Your task to perform on an android device: Open Google Image 0: 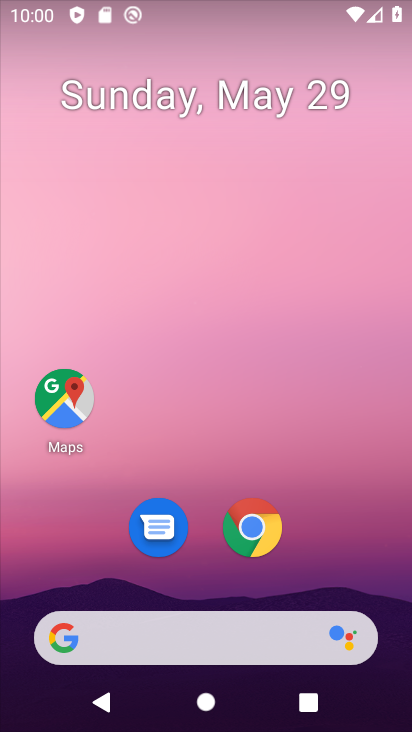
Step 0: drag from (354, 458) to (313, 198)
Your task to perform on an android device: Open Google Image 1: 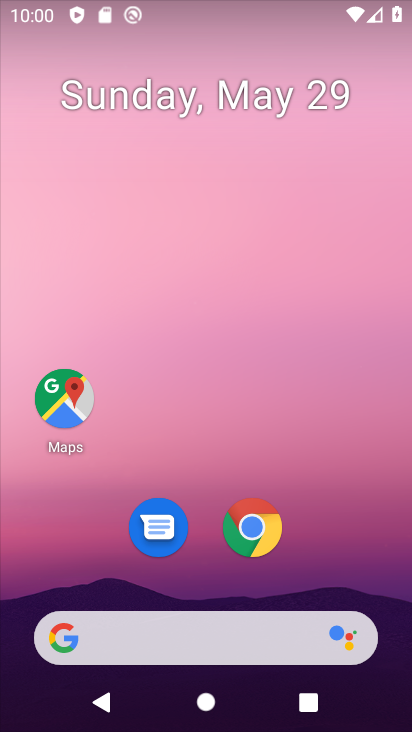
Step 1: drag from (331, 552) to (331, 156)
Your task to perform on an android device: Open Google Image 2: 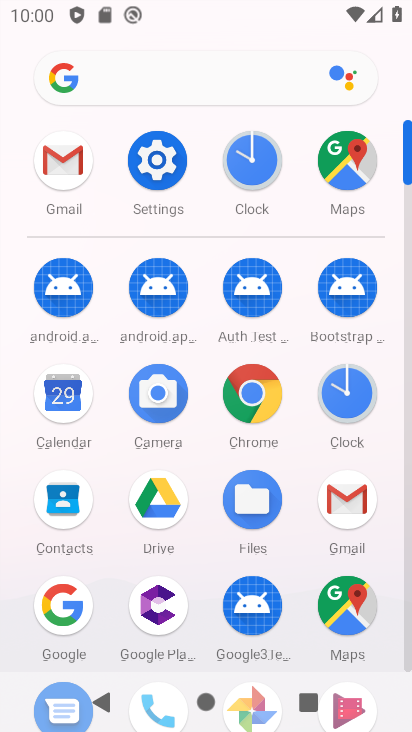
Step 2: click (53, 609)
Your task to perform on an android device: Open Google Image 3: 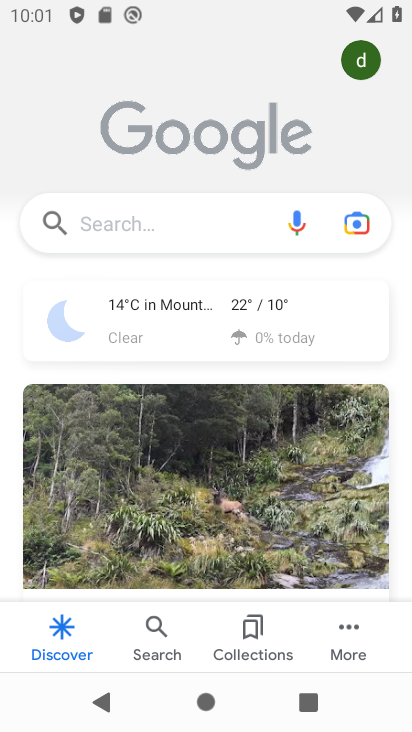
Step 3: task complete